Your task to perform on an android device: show emergency info Image 0: 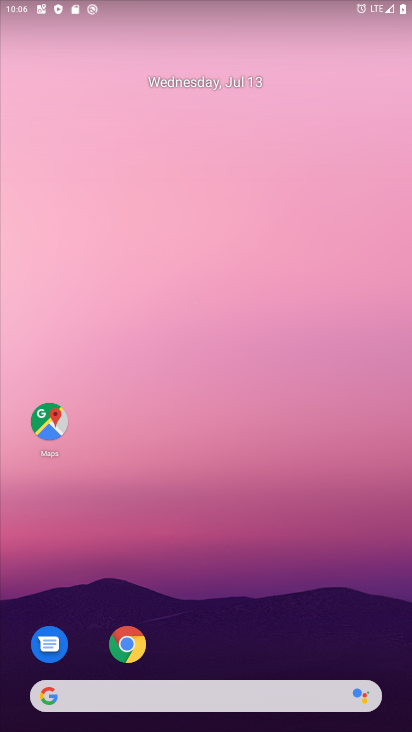
Step 0: drag from (200, 729) to (199, 106)
Your task to perform on an android device: show emergency info Image 1: 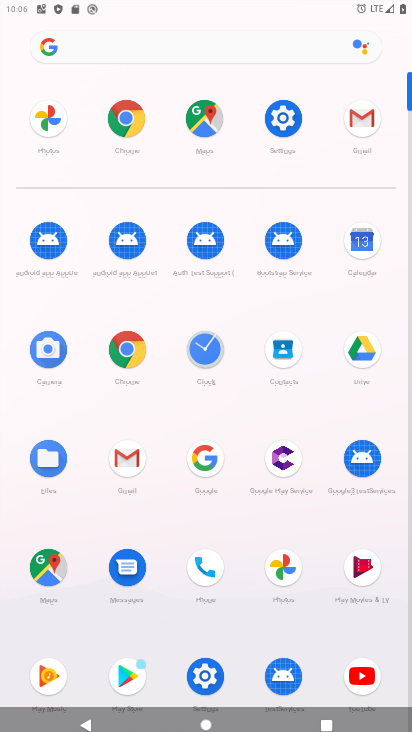
Step 1: click (285, 121)
Your task to perform on an android device: show emergency info Image 2: 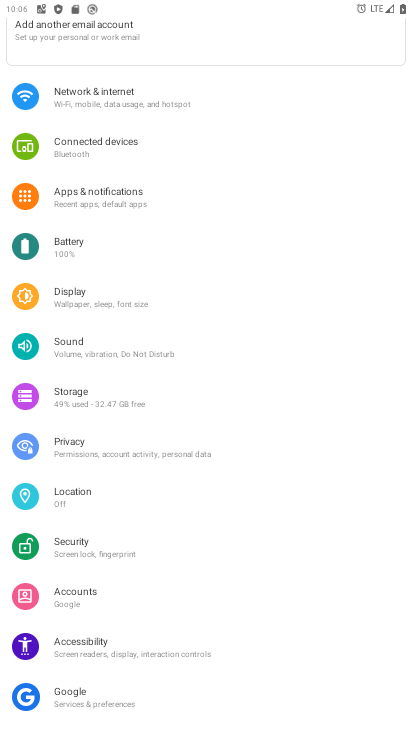
Step 2: drag from (118, 681) to (151, 253)
Your task to perform on an android device: show emergency info Image 3: 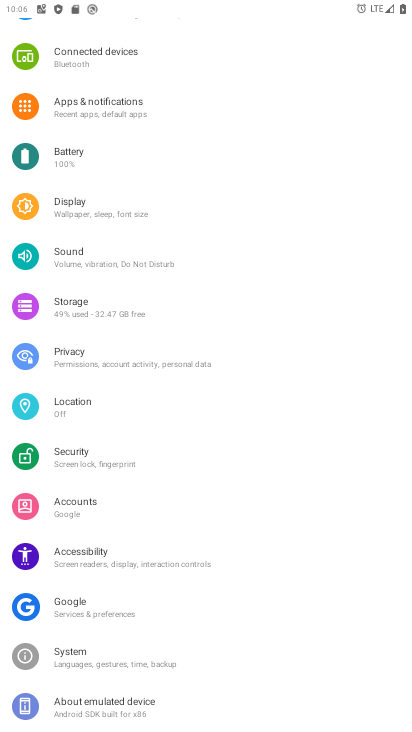
Step 3: click (93, 707)
Your task to perform on an android device: show emergency info Image 4: 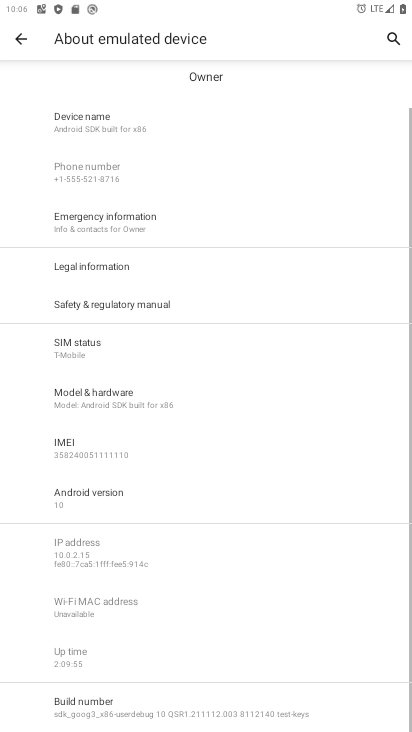
Step 4: click (133, 222)
Your task to perform on an android device: show emergency info Image 5: 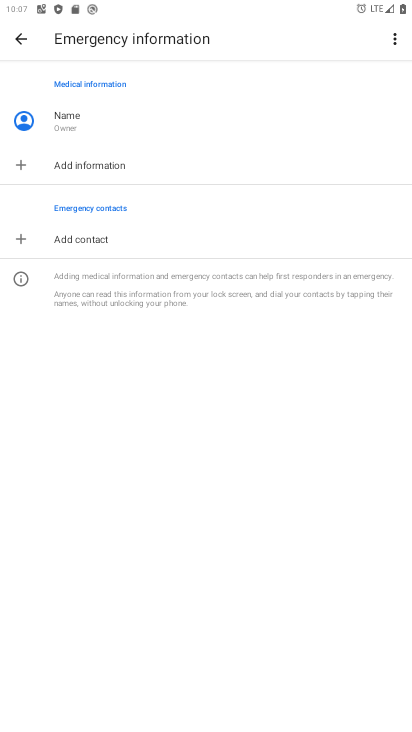
Step 5: task complete